Your task to perform on an android device: Open privacy settings Image 0: 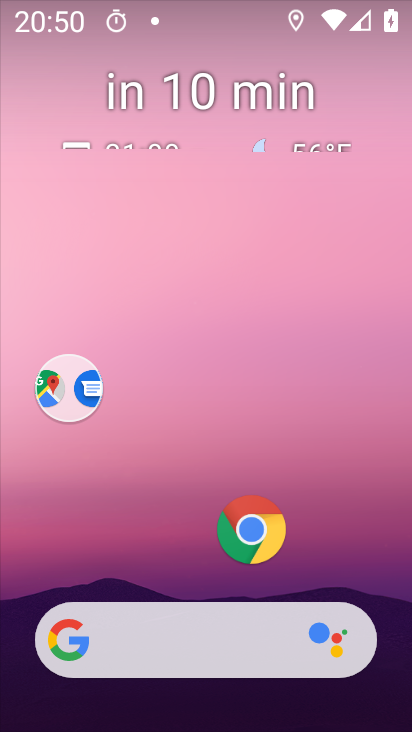
Step 0: drag from (152, 558) to (128, 27)
Your task to perform on an android device: Open privacy settings Image 1: 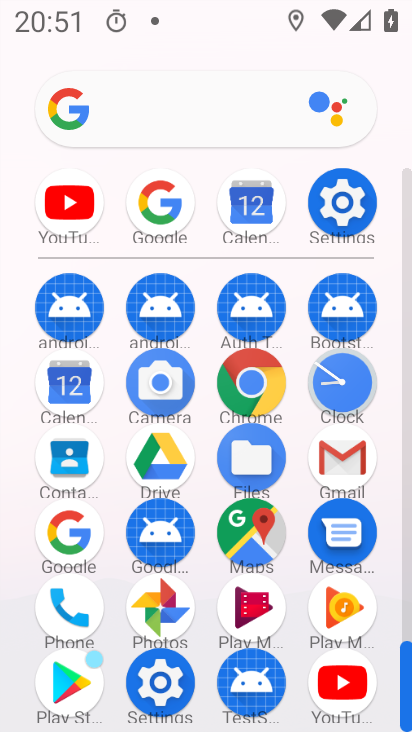
Step 1: click (349, 203)
Your task to perform on an android device: Open privacy settings Image 2: 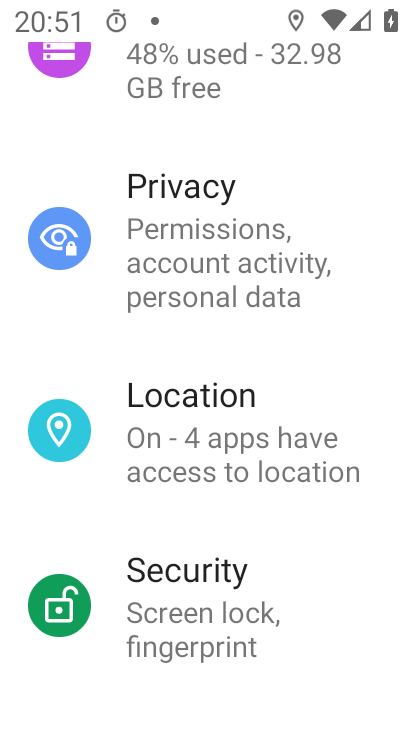
Step 2: click (211, 237)
Your task to perform on an android device: Open privacy settings Image 3: 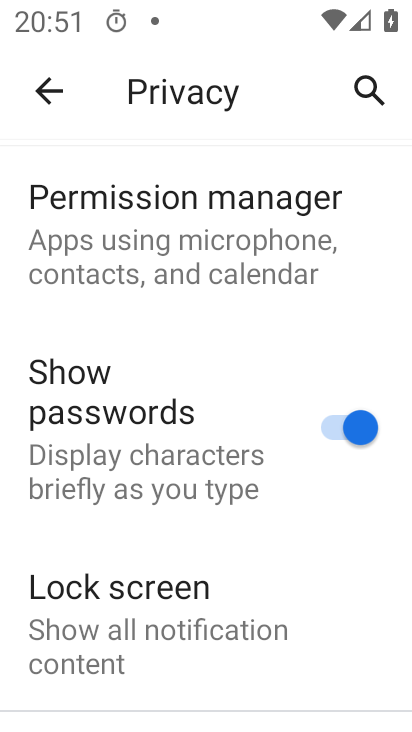
Step 3: task complete